Your task to perform on an android device: Open Google Chrome and open the bookmarks view Image 0: 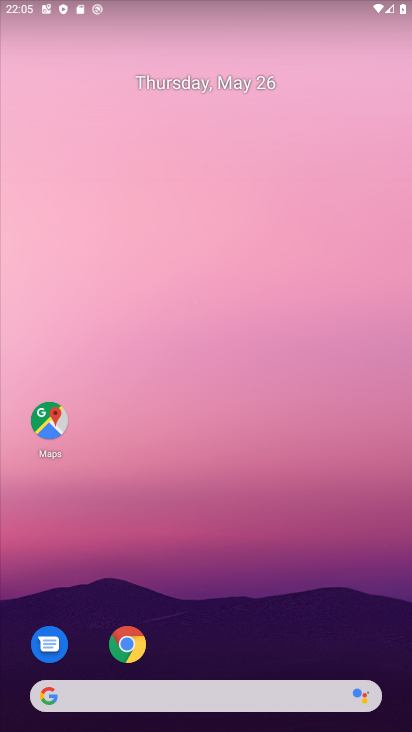
Step 0: drag from (368, 648) to (362, 114)
Your task to perform on an android device: Open Google Chrome and open the bookmarks view Image 1: 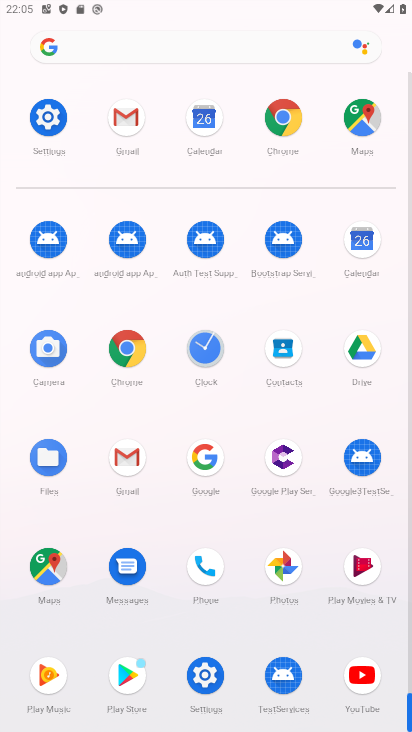
Step 1: click (130, 360)
Your task to perform on an android device: Open Google Chrome and open the bookmarks view Image 2: 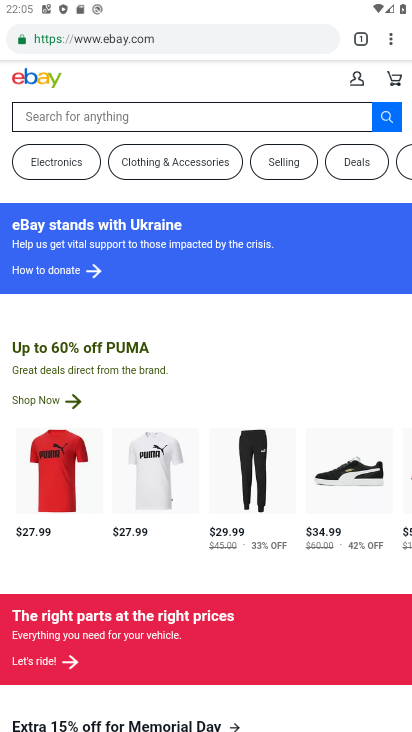
Step 2: click (389, 35)
Your task to perform on an android device: Open Google Chrome and open the bookmarks view Image 3: 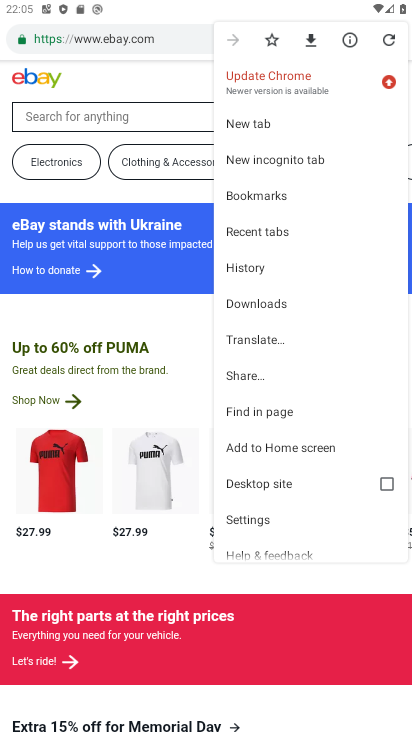
Step 3: click (279, 202)
Your task to perform on an android device: Open Google Chrome and open the bookmarks view Image 4: 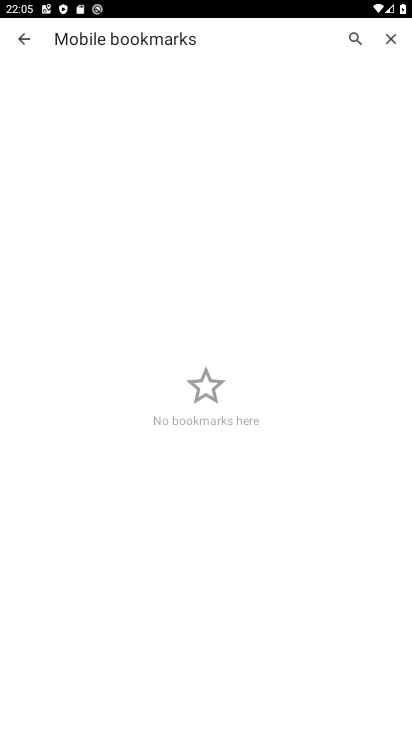
Step 4: task complete